Your task to perform on an android device: open wifi settings Image 0: 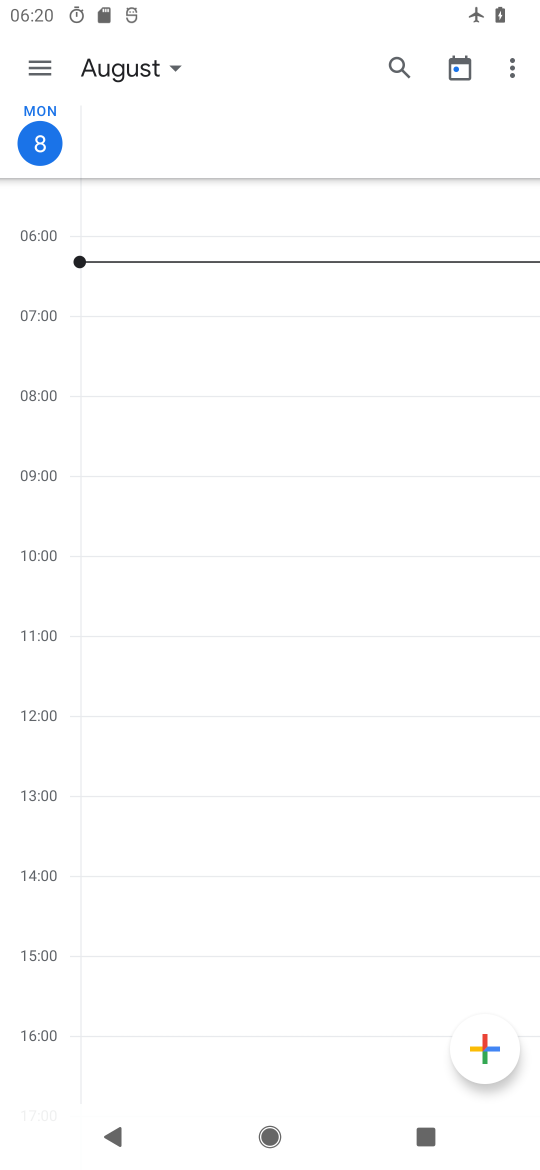
Step 0: press home button
Your task to perform on an android device: open wifi settings Image 1: 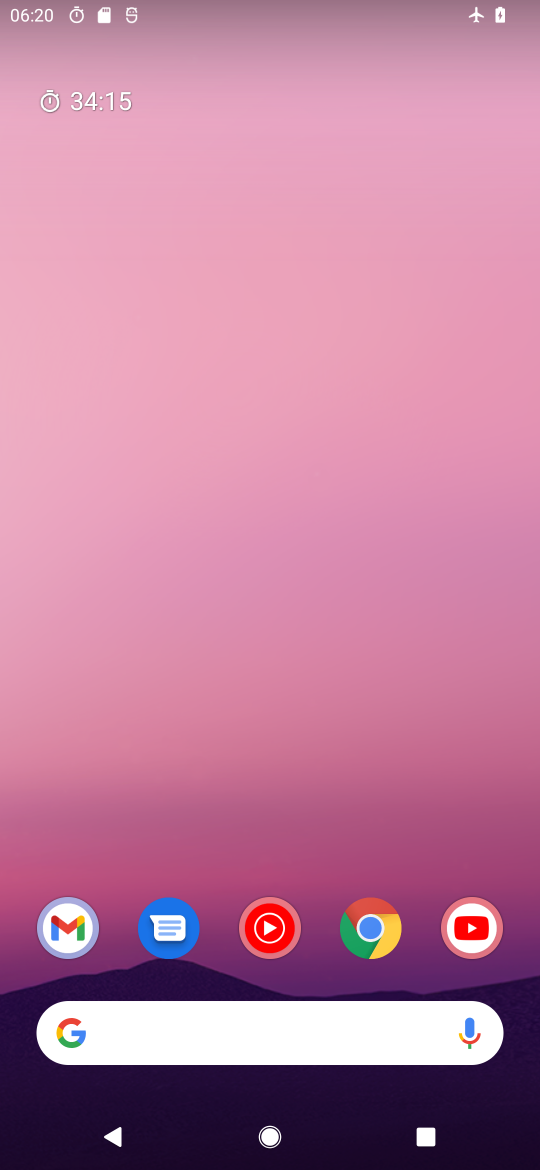
Step 1: drag from (268, 16) to (331, 16)
Your task to perform on an android device: open wifi settings Image 2: 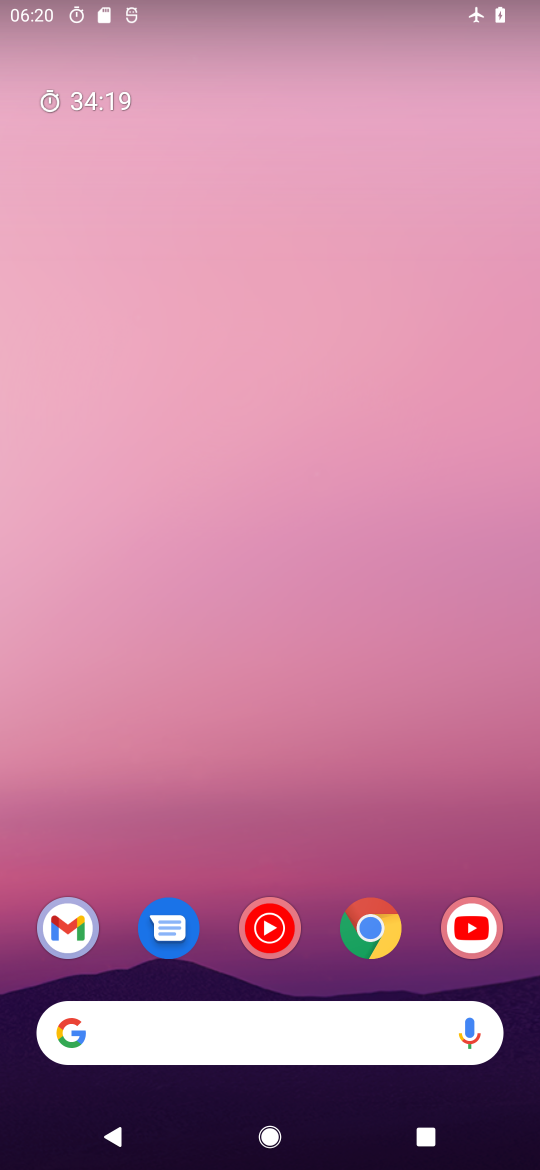
Step 2: drag from (217, 976) to (160, 15)
Your task to perform on an android device: open wifi settings Image 3: 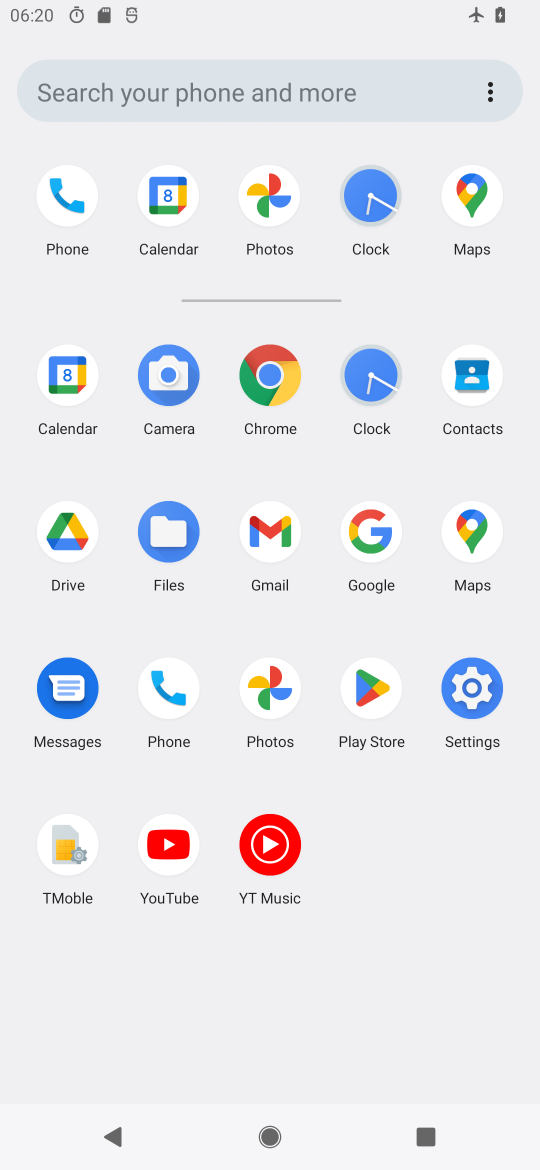
Step 3: click (477, 712)
Your task to perform on an android device: open wifi settings Image 4: 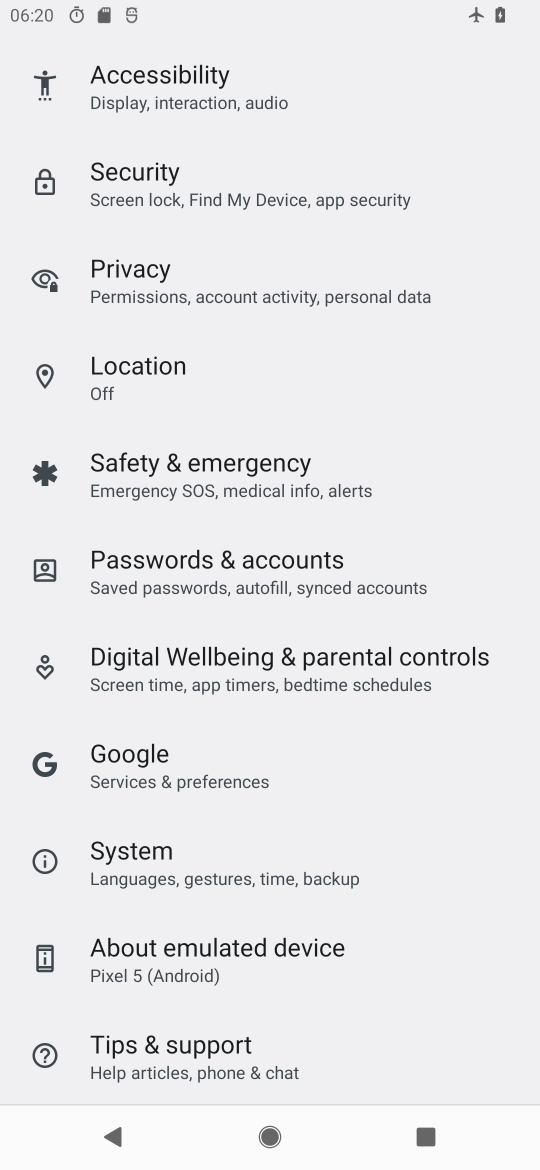
Step 4: drag from (251, 356) to (332, 1169)
Your task to perform on an android device: open wifi settings Image 5: 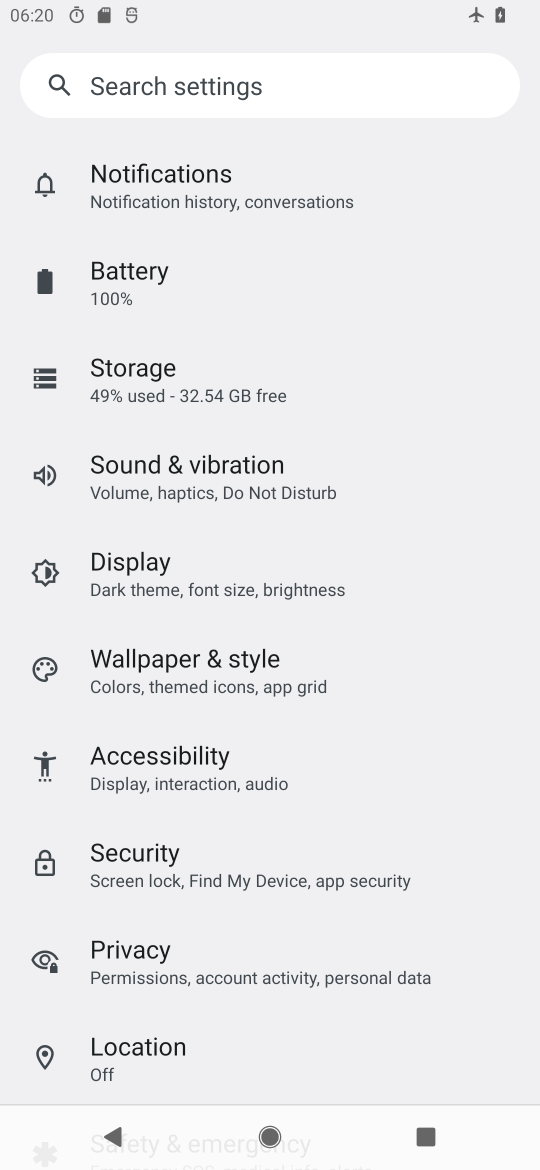
Step 5: drag from (244, 339) to (292, 912)
Your task to perform on an android device: open wifi settings Image 6: 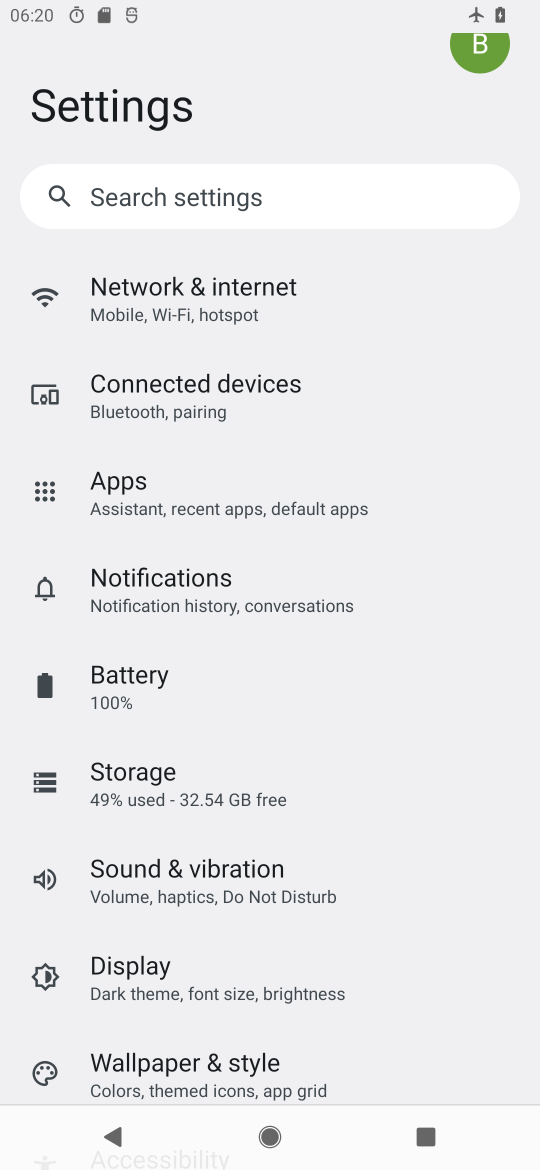
Step 6: click (184, 320)
Your task to perform on an android device: open wifi settings Image 7: 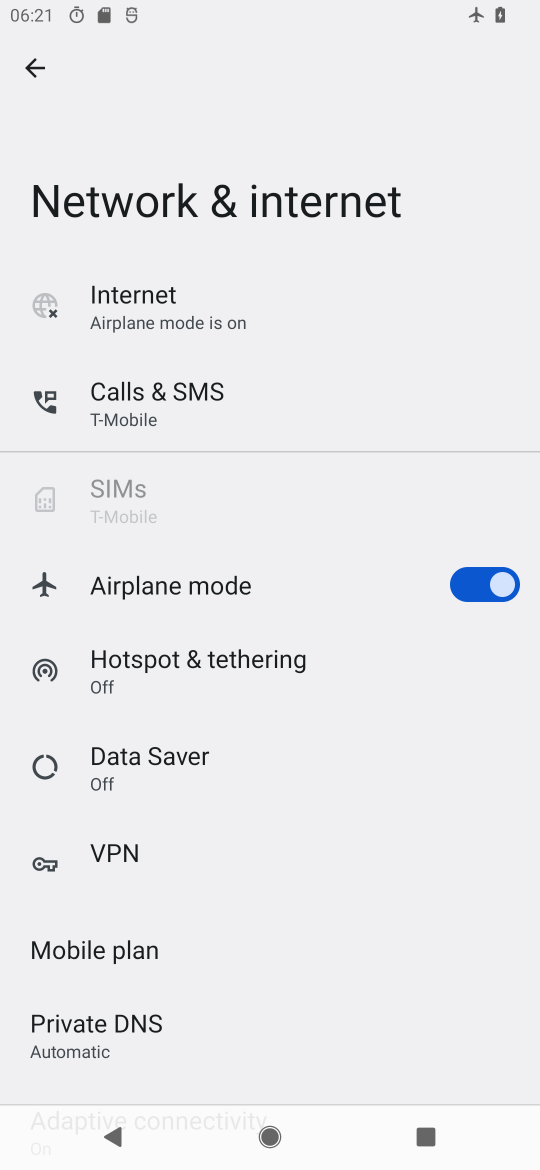
Step 7: click (170, 306)
Your task to perform on an android device: open wifi settings Image 8: 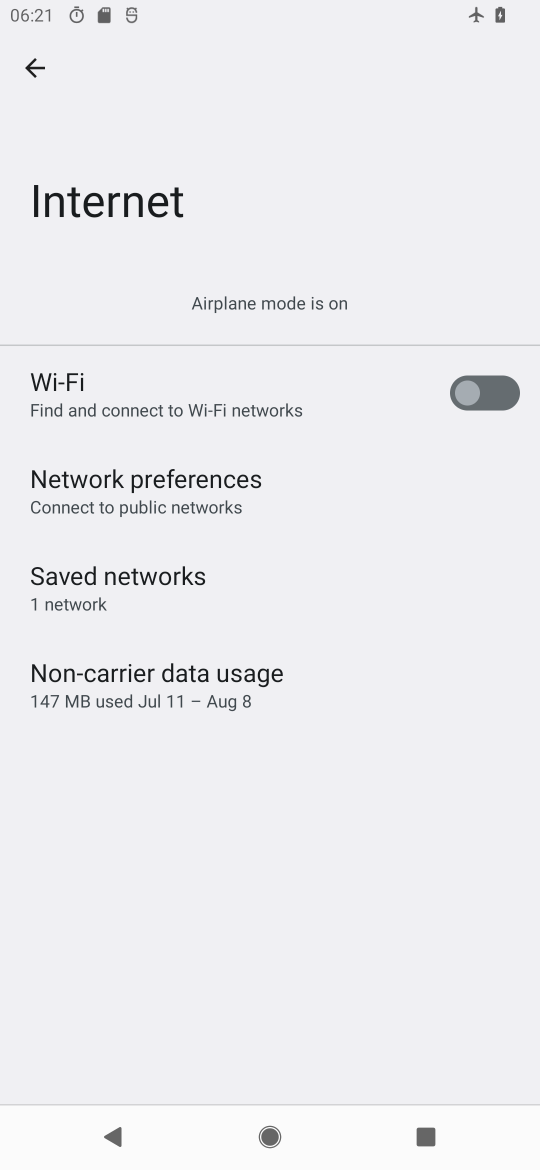
Step 8: click (418, 391)
Your task to perform on an android device: open wifi settings Image 9: 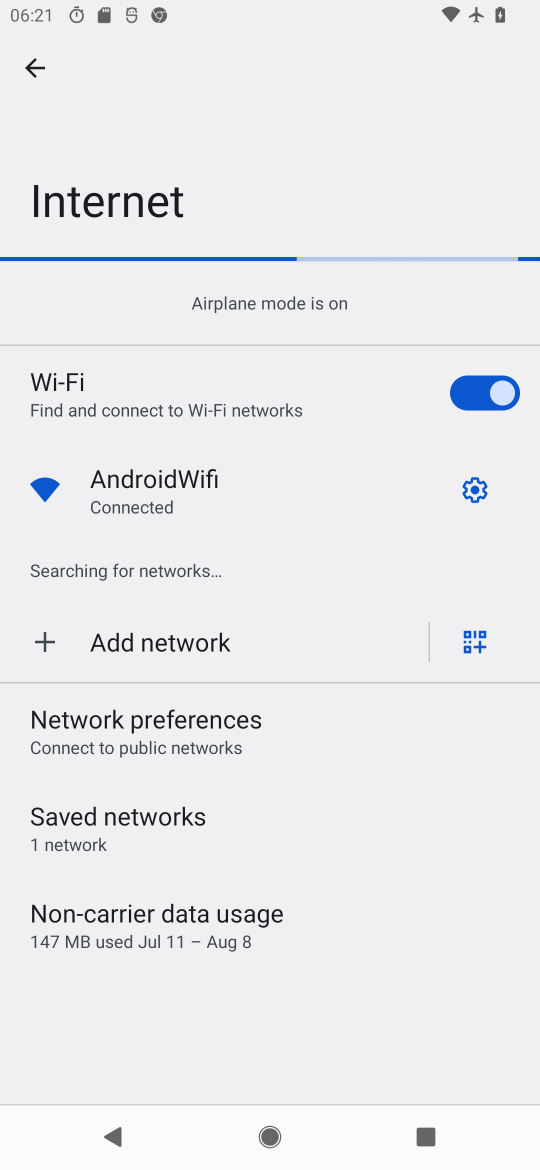
Step 9: task complete